Your task to perform on an android device: toggle wifi Image 0: 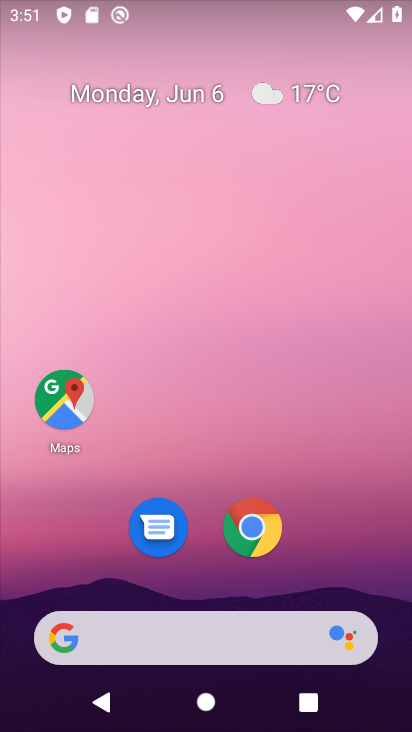
Step 0: drag from (295, 354) to (268, 609)
Your task to perform on an android device: toggle wifi Image 1: 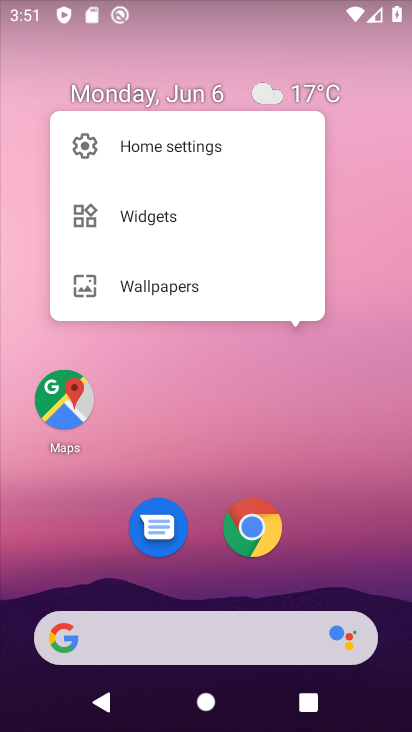
Step 1: click (398, 176)
Your task to perform on an android device: toggle wifi Image 2: 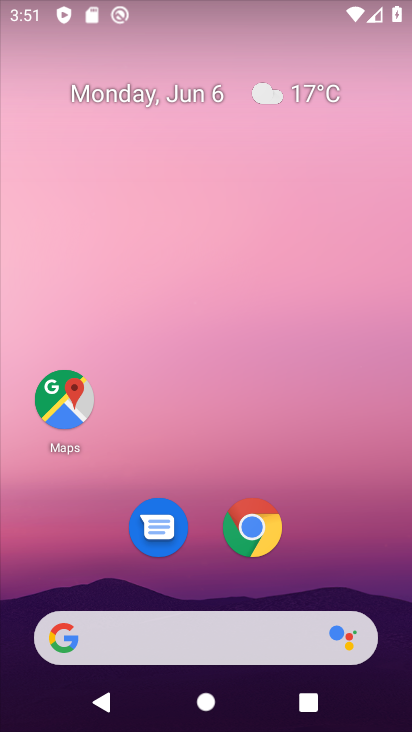
Step 2: drag from (230, 4) to (161, 431)
Your task to perform on an android device: toggle wifi Image 3: 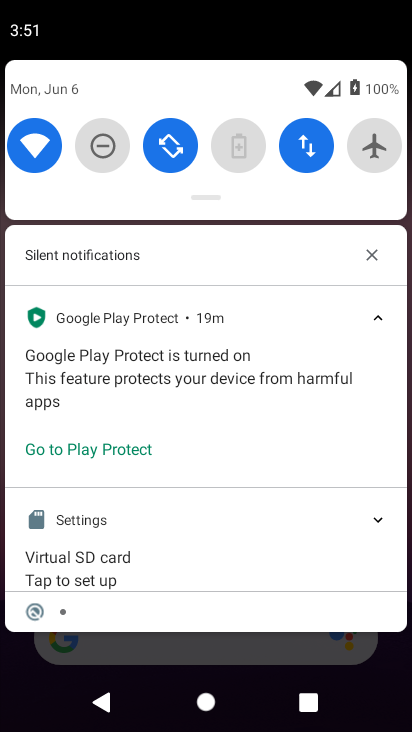
Step 3: click (31, 149)
Your task to perform on an android device: toggle wifi Image 4: 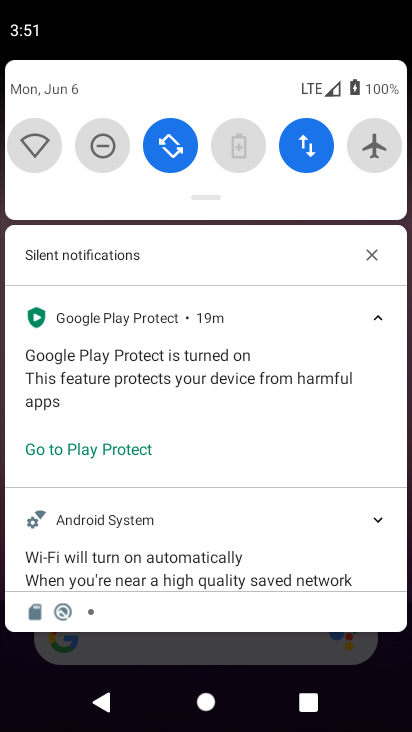
Step 4: task complete